Your task to perform on an android device: turn off wifi Image 0: 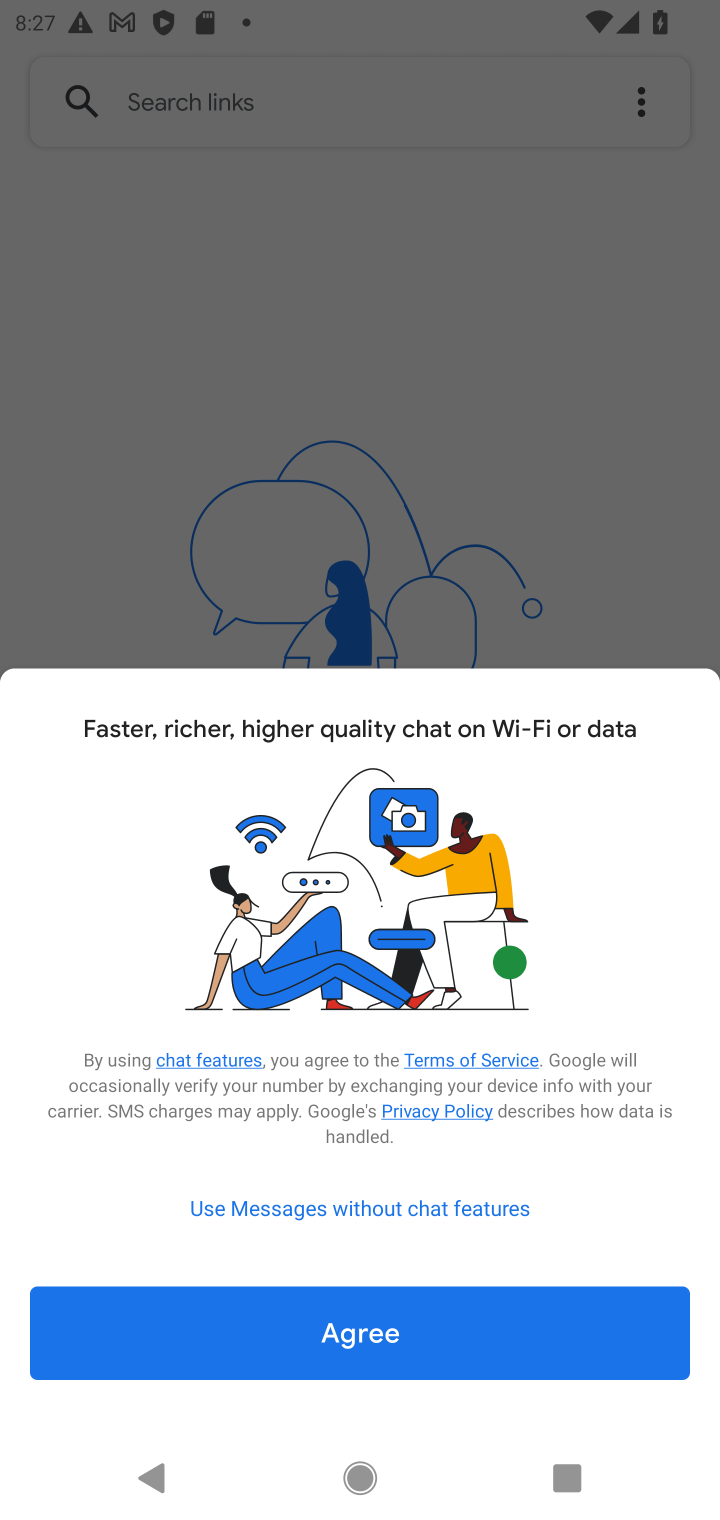
Step 0: click (403, 1301)
Your task to perform on an android device: turn off wifi Image 1: 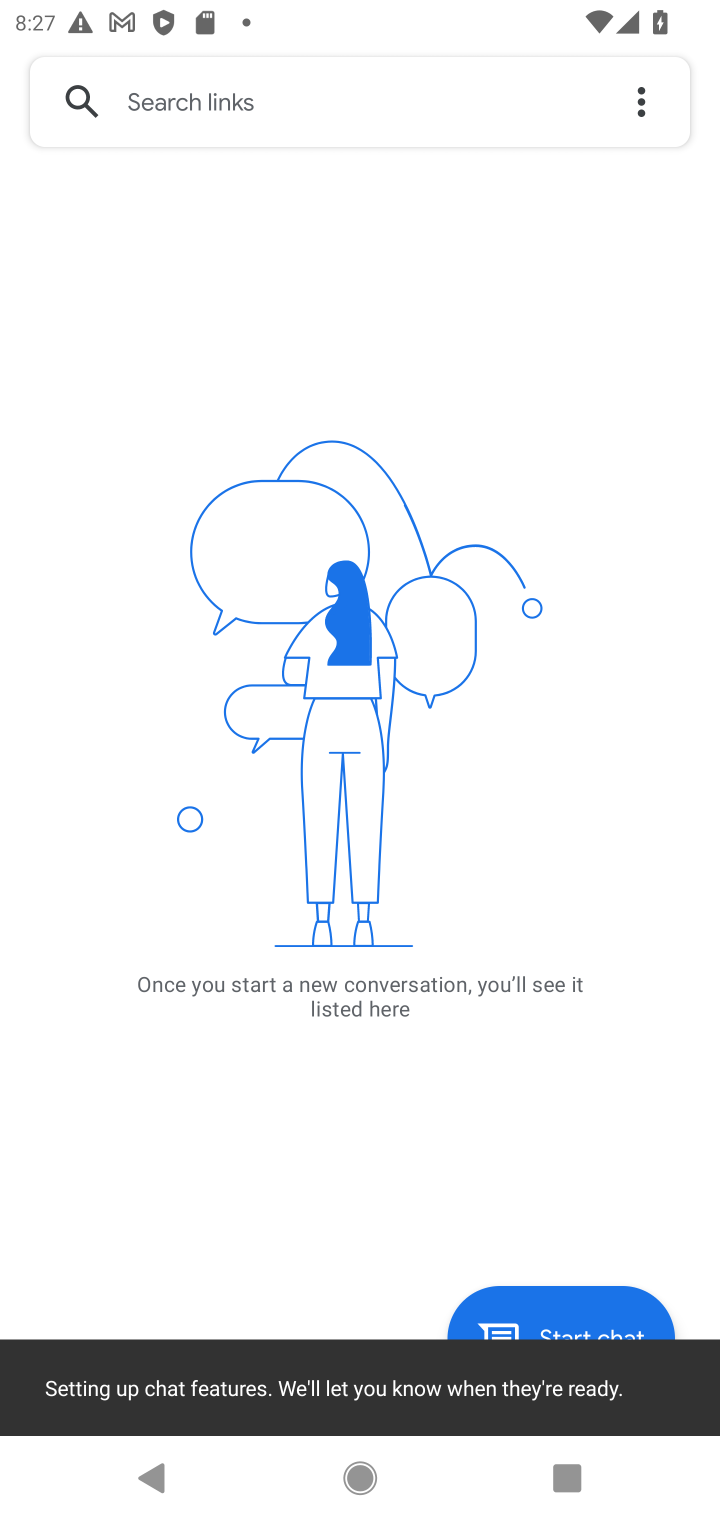
Step 1: drag from (360, 14) to (425, 800)
Your task to perform on an android device: turn off wifi Image 2: 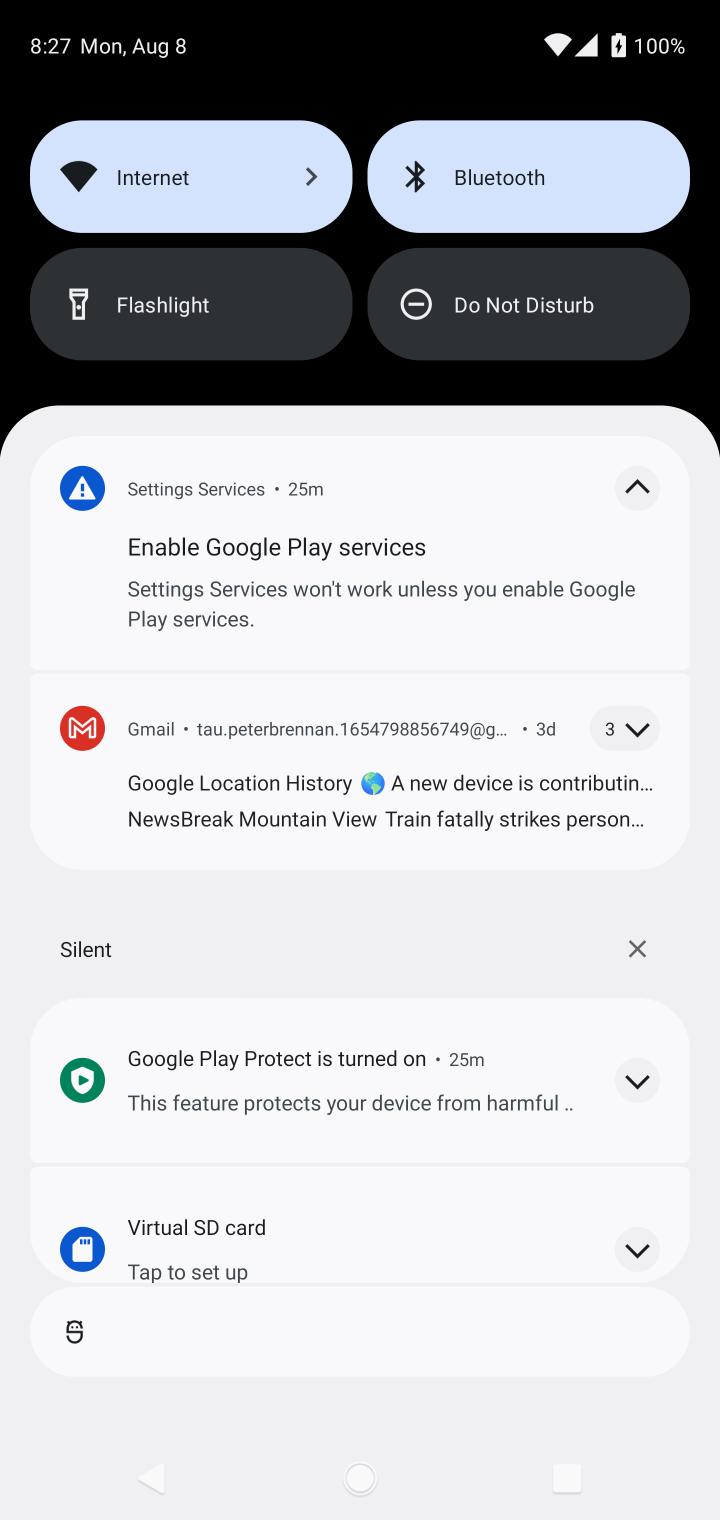
Step 2: click (425, 800)
Your task to perform on an android device: turn off wifi Image 3: 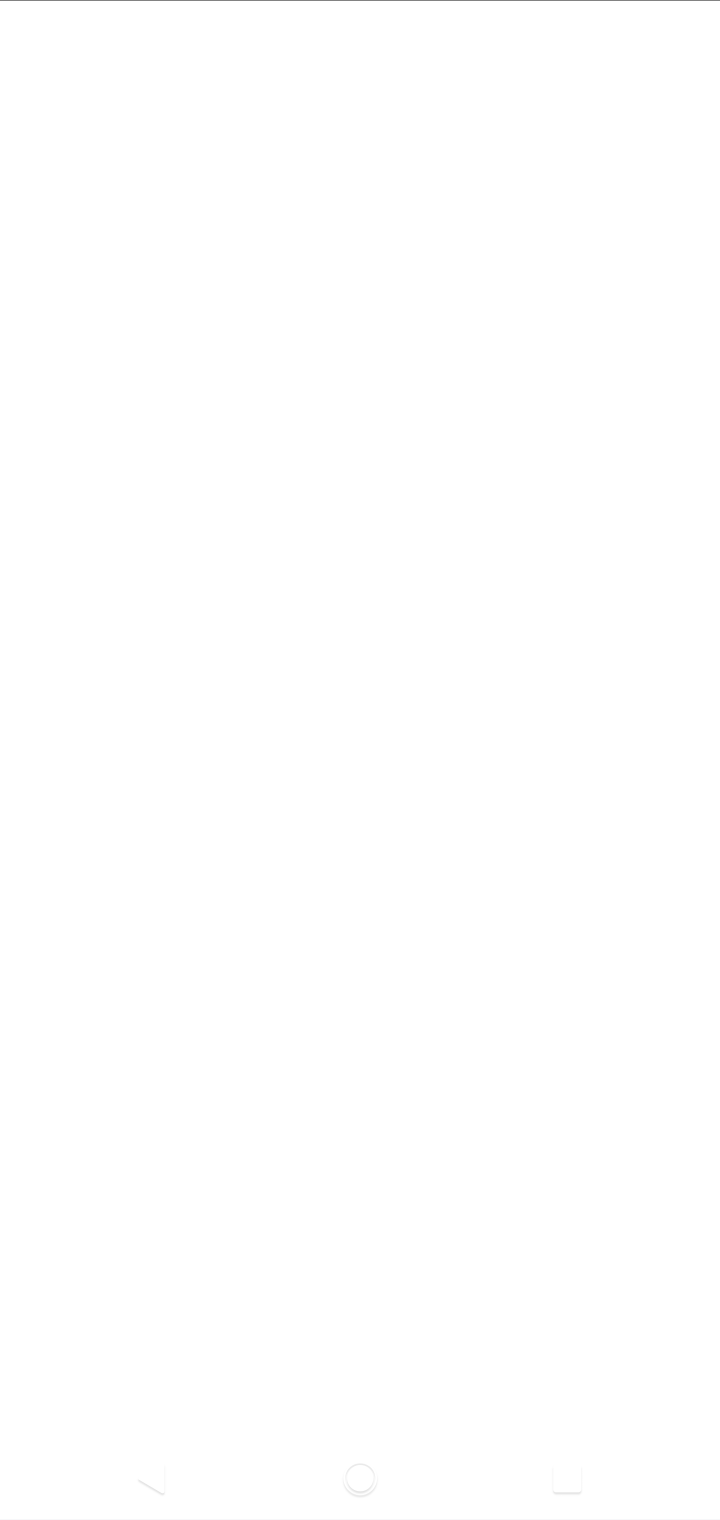
Step 3: click (377, 191)
Your task to perform on an android device: turn off wifi Image 4: 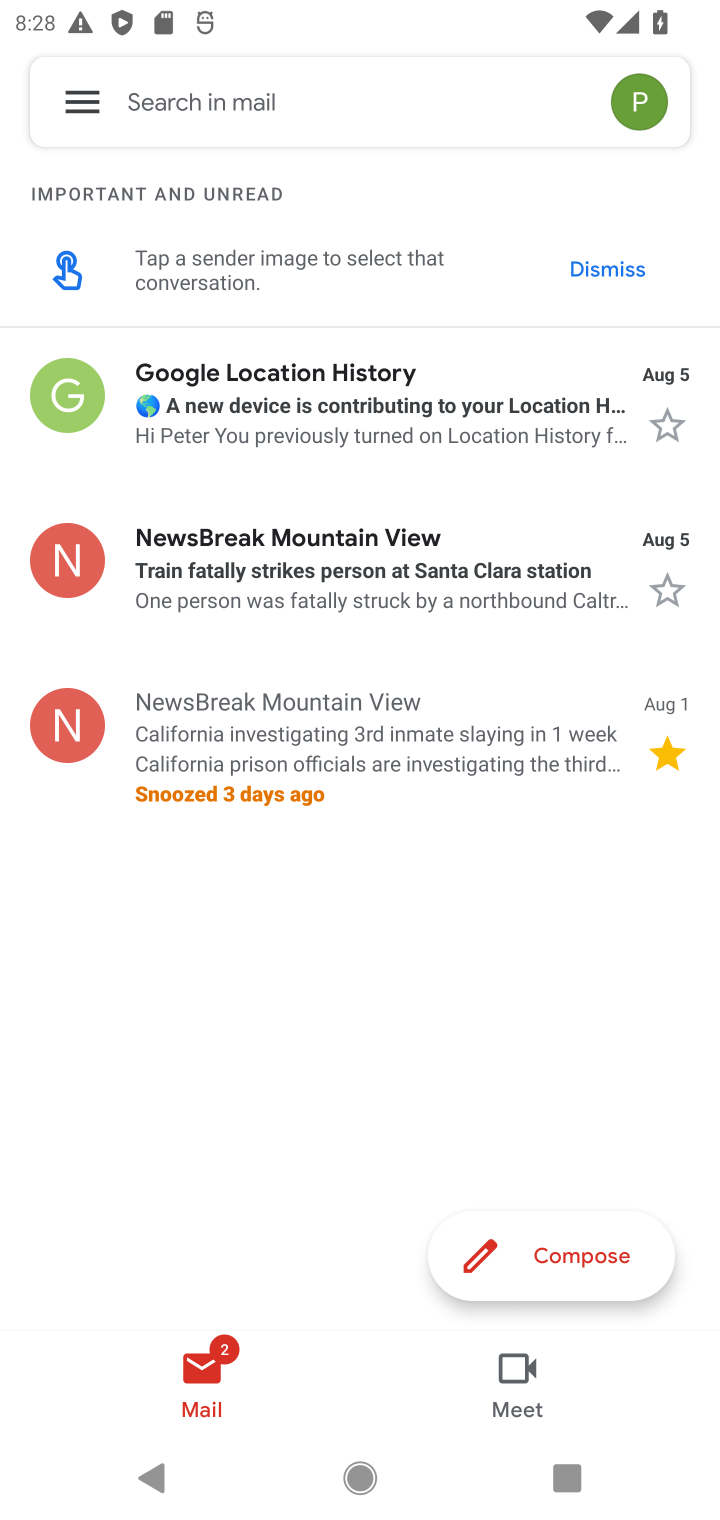
Step 4: drag from (296, 9) to (105, 42)
Your task to perform on an android device: turn off wifi Image 5: 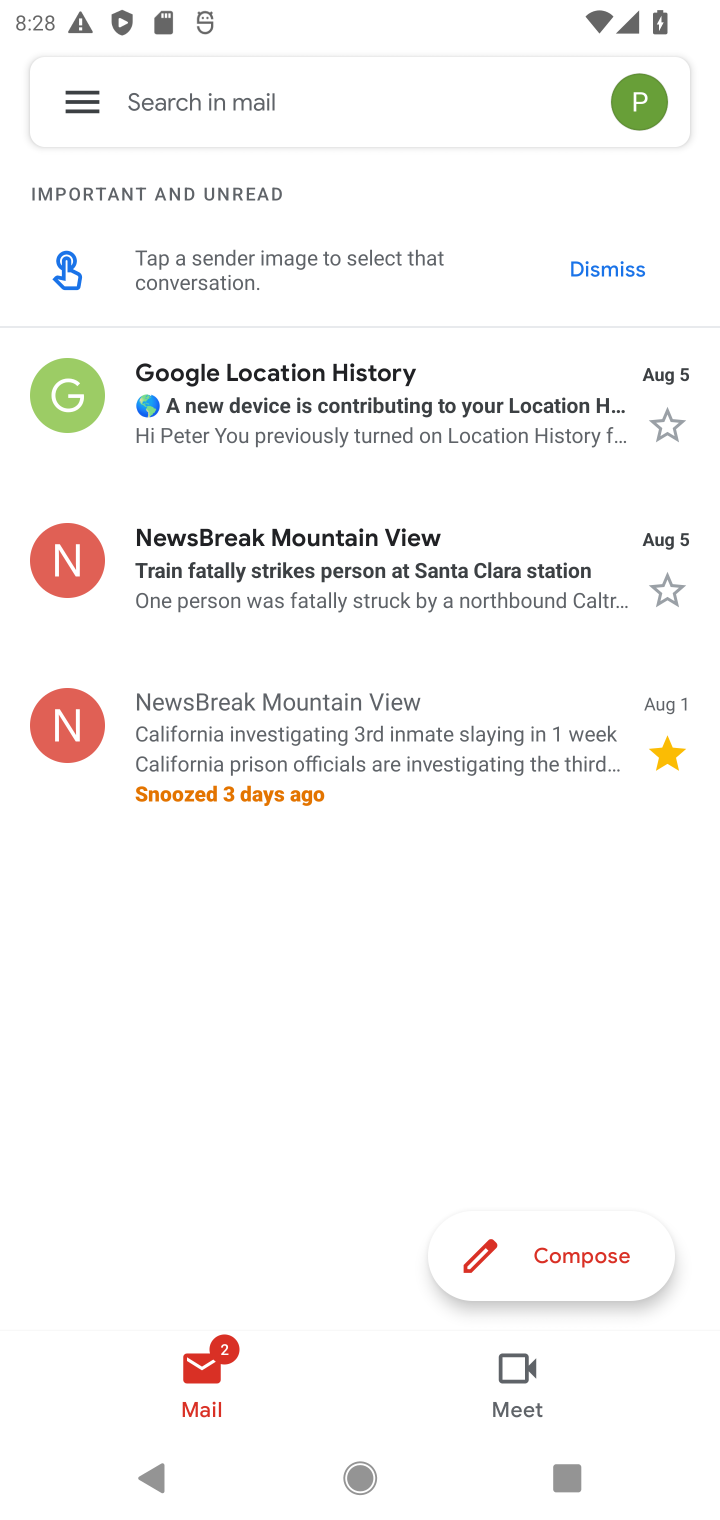
Step 5: drag from (261, 17) to (111, 1248)
Your task to perform on an android device: turn off wifi Image 6: 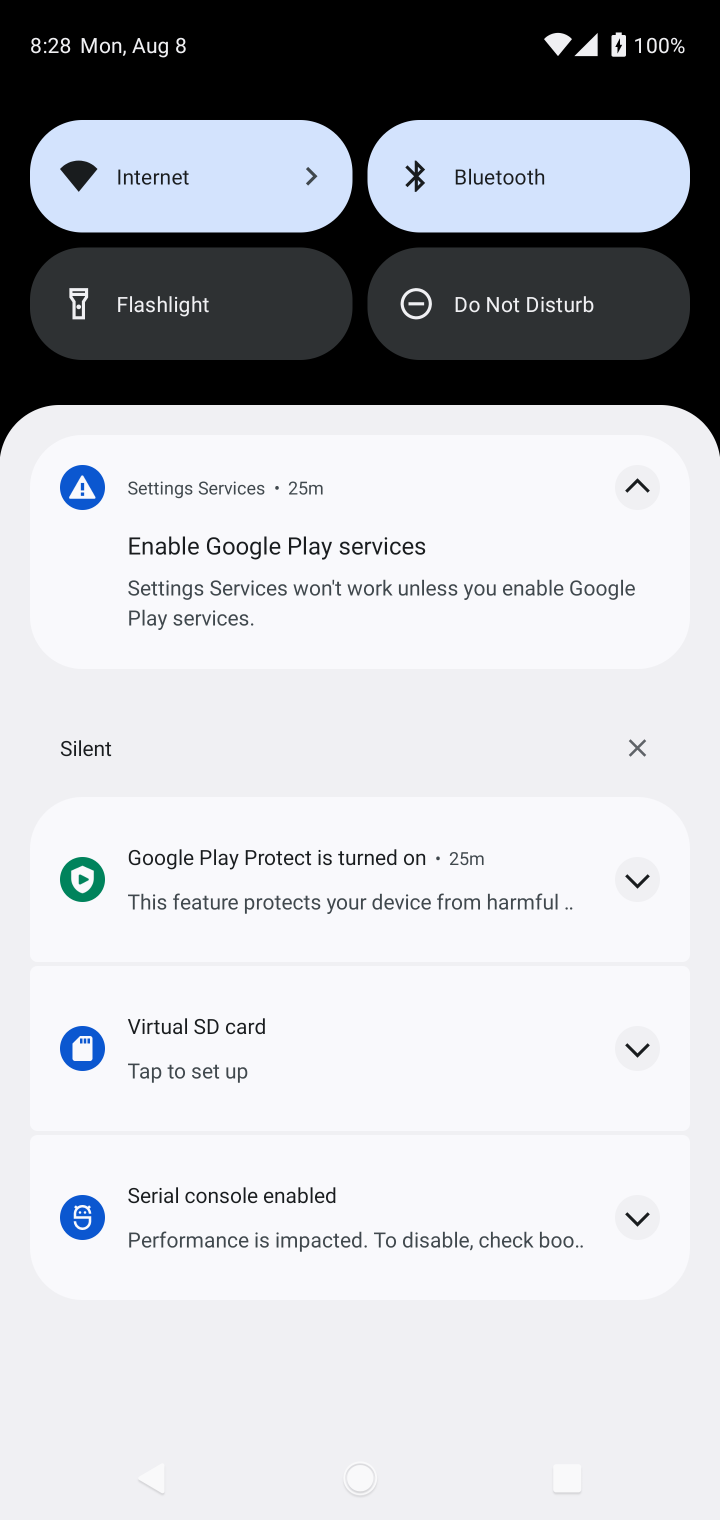
Step 6: click (191, 149)
Your task to perform on an android device: turn off wifi Image 7: 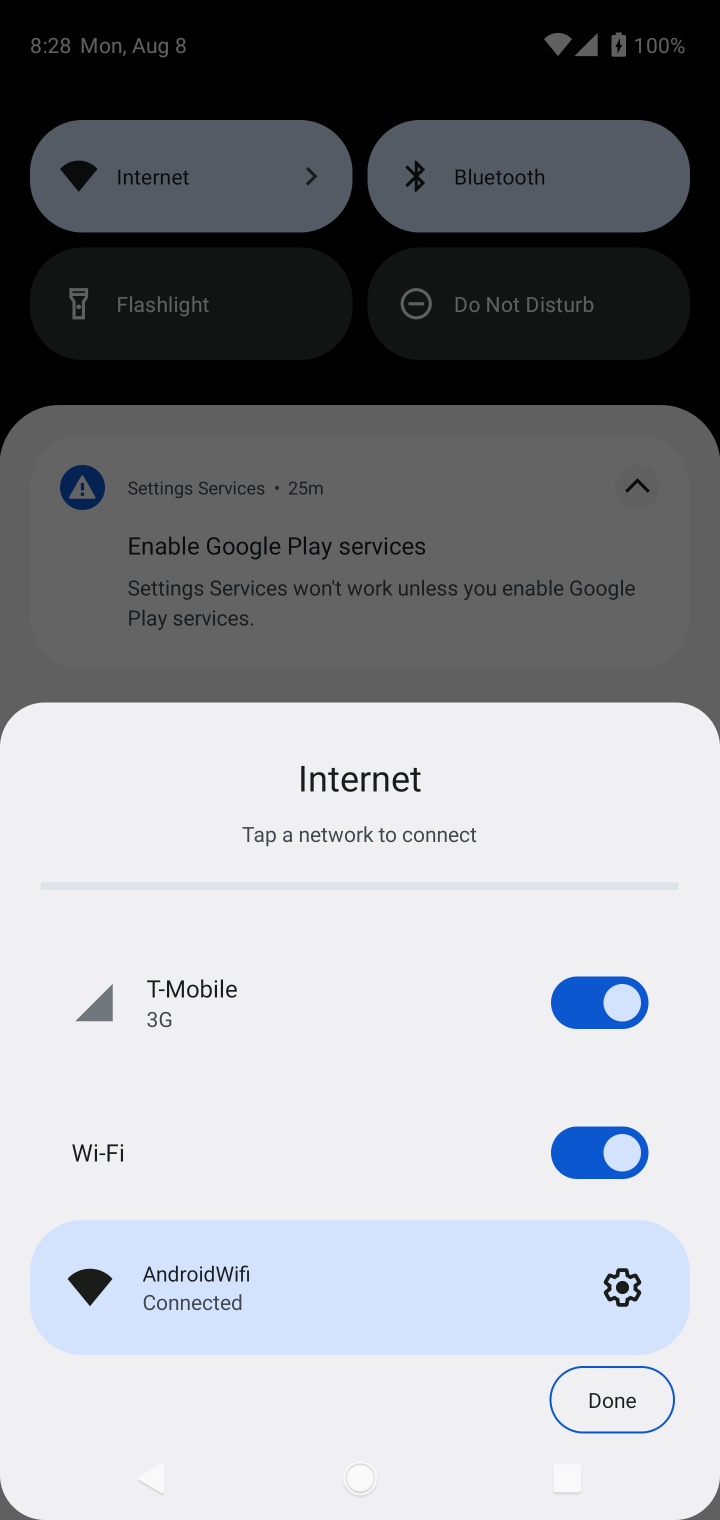
Step 7: click (613, 1144)
Your task to perform on an android device: turn off wifi Image 8: 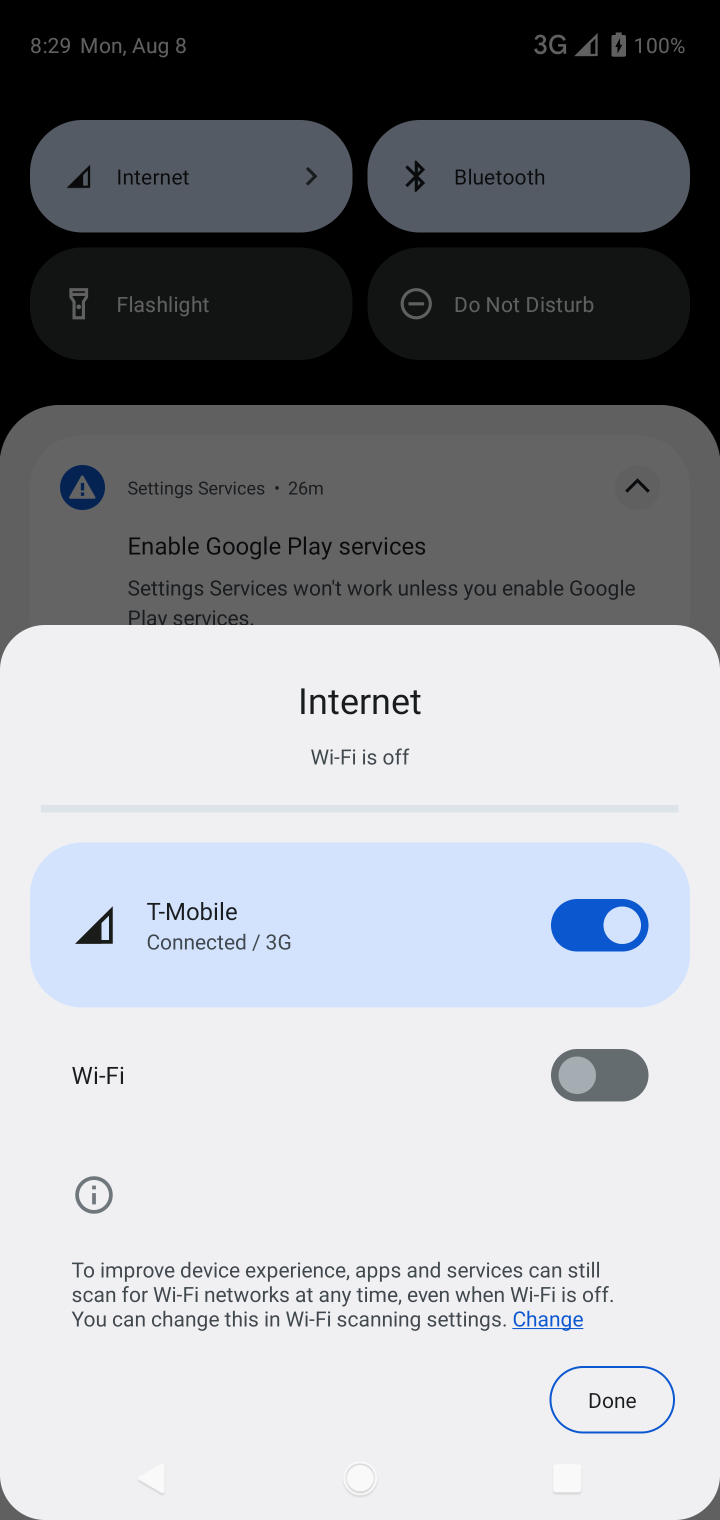
Step 8: task complete